Your task to perform on an android device: Is it going to rain this weekend? Image 0: 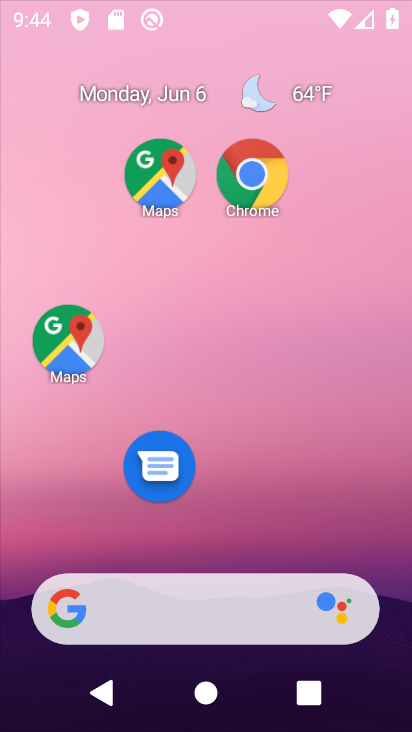
Step 0: drag from (264, 708) to (212, 161)
Your task to perform on an android device: Is it going to rain this weekend? Image 1: 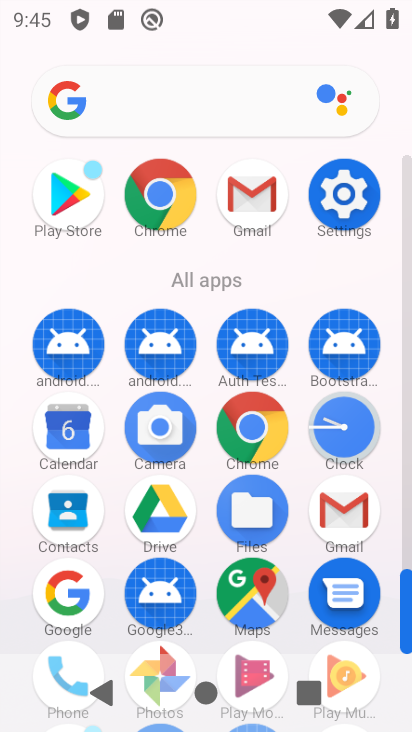
Step 1: press back button
Your task to perform on an android device: Is it going to rain this weekend? Image 2: 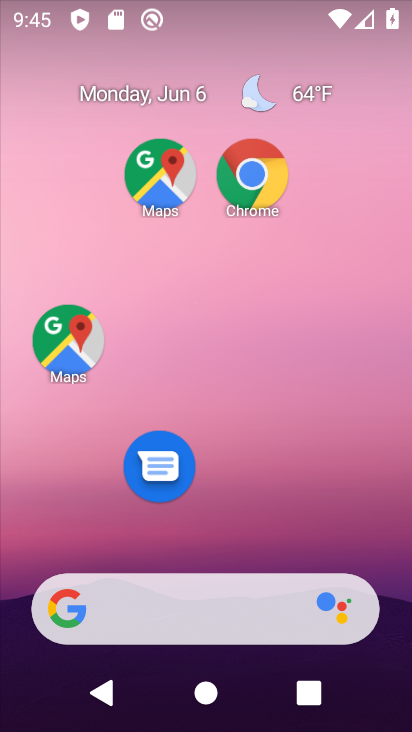
Step 2: drag from (0, 203) to (411, 415)
Your task to perform on an android device: Is it going to rain this weekend? Image 3: 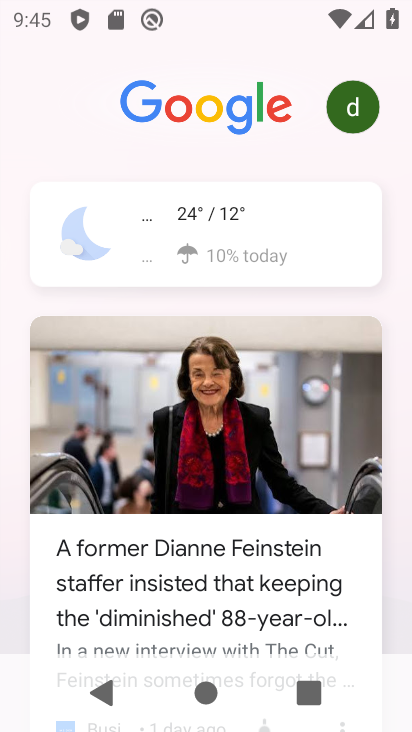
Step 3: click (145, 236)
Your task to perform on an android device: Is it going to rain this weekend? Image 4: 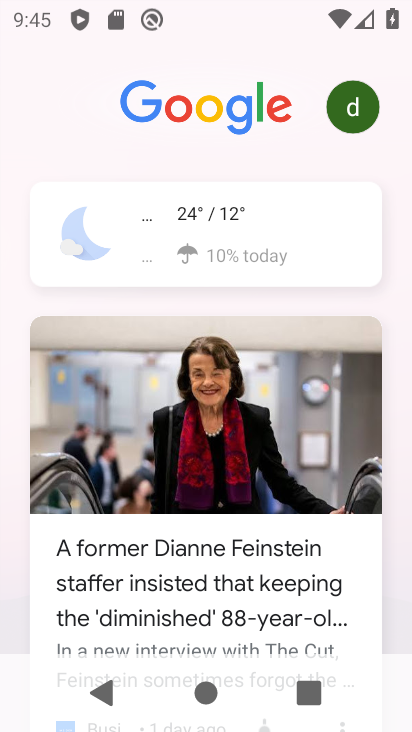
Step 4: click (145, 236)
Your task to perform on an android device: Is it going to rain this weekend? Image 5: 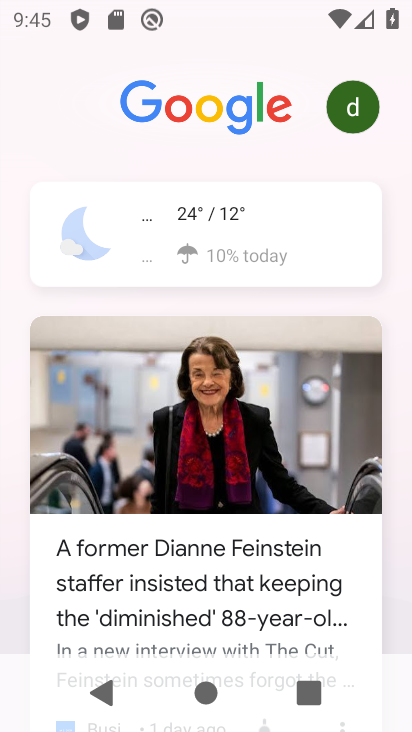
Step 5: click (144, 235)
Your task to perform on an android device: Is it going to rain this weekend? Image 6: 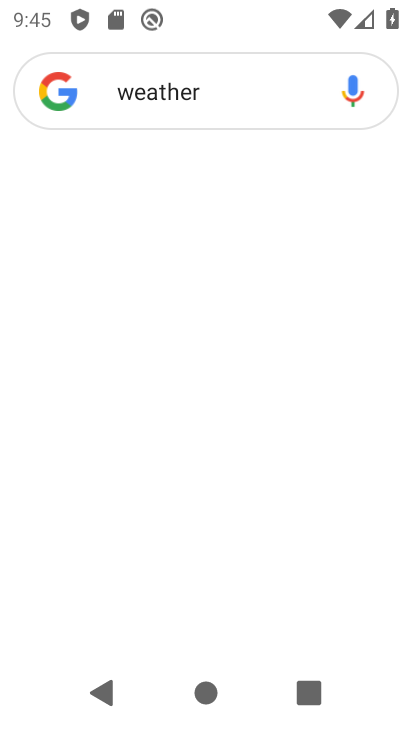
Step 6: click (144, 235)
Your task to perform on an android device: Is it going to rain this weekend? Image 7: 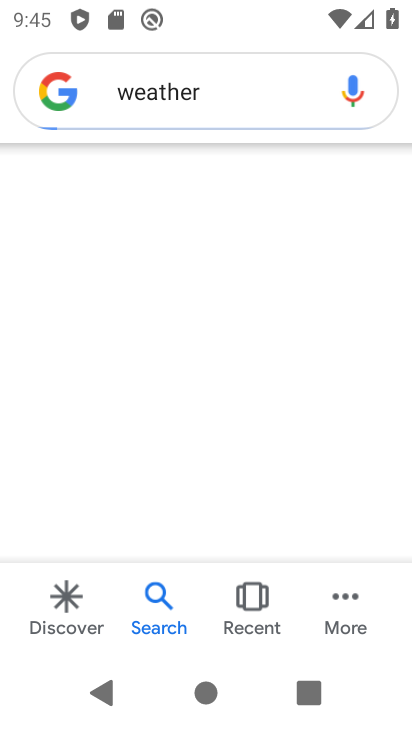
Step 7: click (144, 235)
Your task to perform on an android device: Is it going to rain this weekend? Image 8: 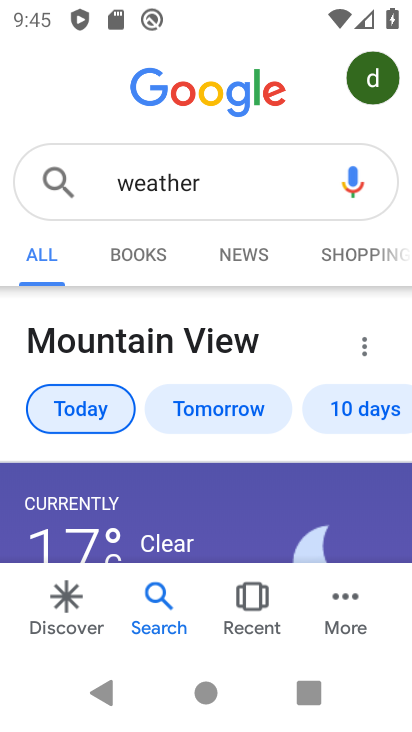
Step 8: click (375, 419)
Your task to perform on an android device: Is it going to rain this weekend? Image 9: 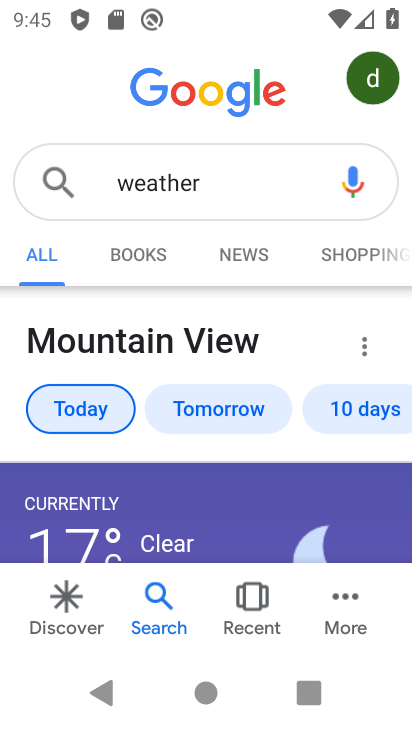
Step 9: click (342, 423)
Your task to perform on an android device: Is it going to rain this weekend? Image 10: 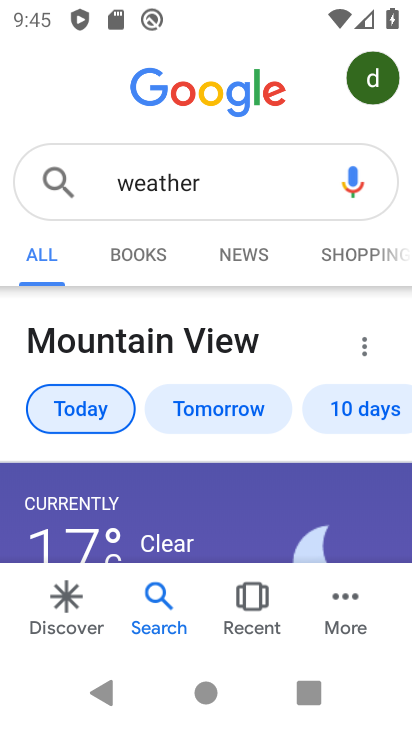
Step 10: click (342, 423)
Your task to perform on an android device: Is it going to rain this weekend? Image 11: 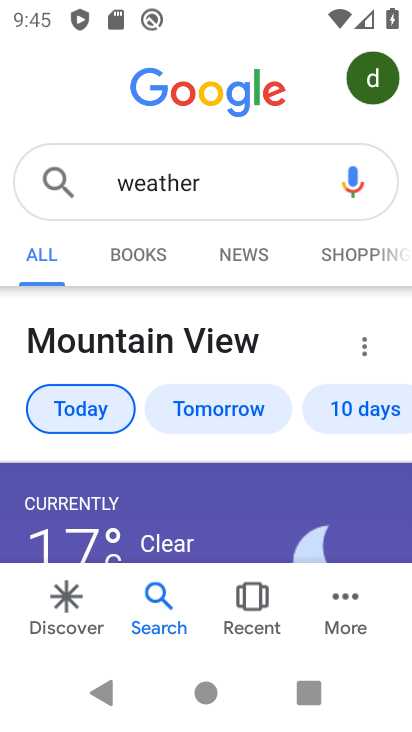
Step 11: click (346, 415)
Your task to perform on an android device: Is it going to rain this weekend? Image 12: 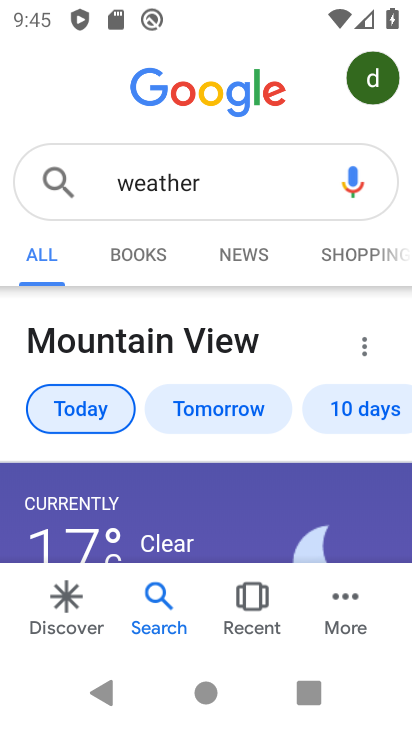
Step 12: click (348, 414)
Your task to perform on an android device: Is it going to rain this weekend? Image 13: 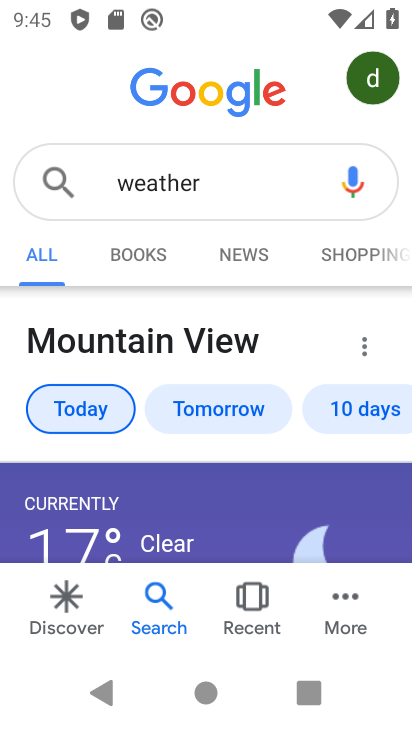
Step 13: click (348, 414)
Your task to perform on an android device: Is it going to rain this weekend? Image 14: 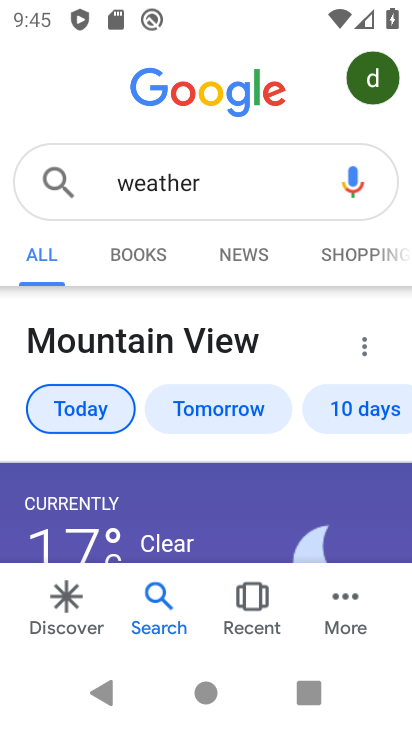
Step 14: click (348, 414)
Your task to perform on an android device: Is it going to rain this weekend? Image 15: 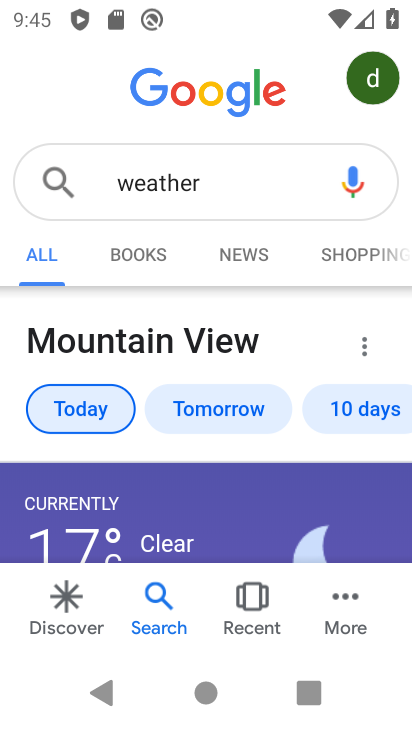
Step 15: task complete